Your task to perform on an android device: Search for Mexican restaurants on Maps Image 0: 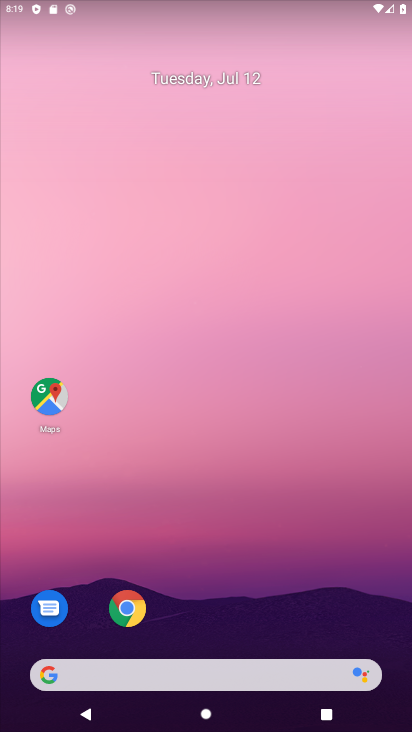
Step 0: click (47, 399)
Your task to perform on an android device: Search for Mexican restaurants on Maps Image 1: 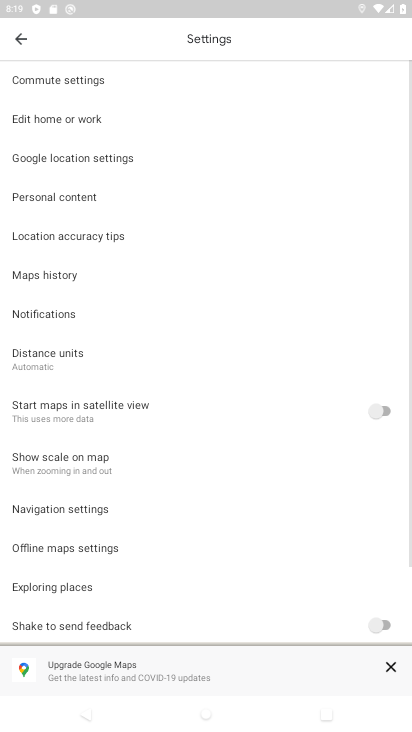
Step 1: click (16, 34)
Your task to perform on an android device: Search for Mexican restaurants on Maps Image 2: 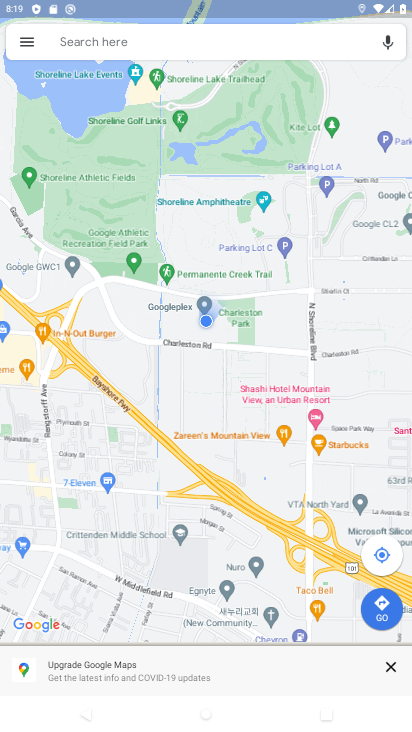
Step 2: click (100, 34)
Your task to perform on an android device: Search for Mexican restaurants on Maps Image 3: 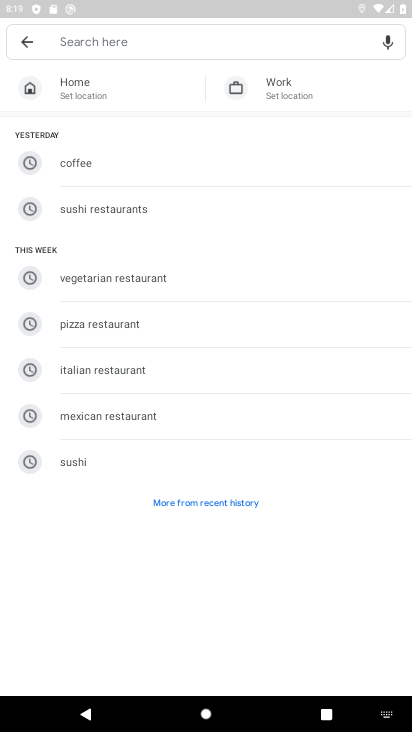
Step 3: type "maxican restaurants"
Your task to perform on an android device: Search for Mexican restaurants on Maps Image 4: 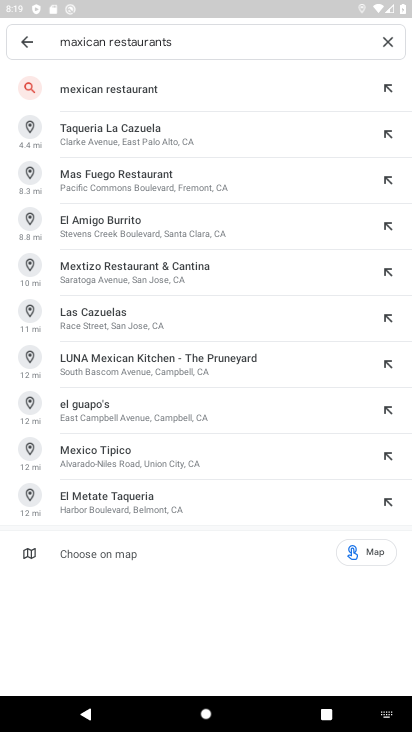
Step 4: click (117, 97)
Your task to perform on an android device: Search for Mexican restaurants on Maps Image 5: 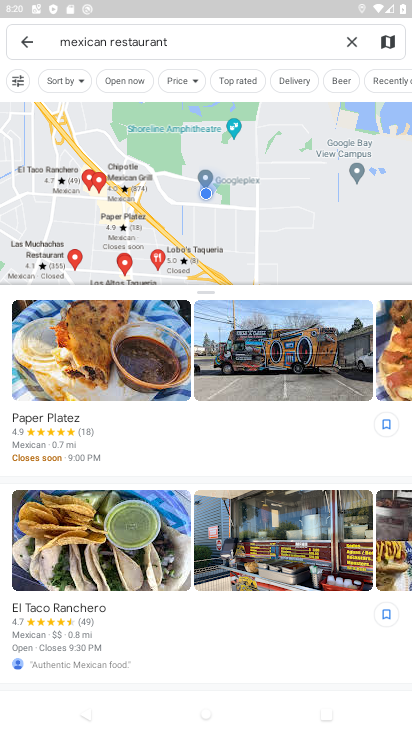
Step 5: task complete